Your task to perform on an android device: toggle pop-ups in chrome Image 0: 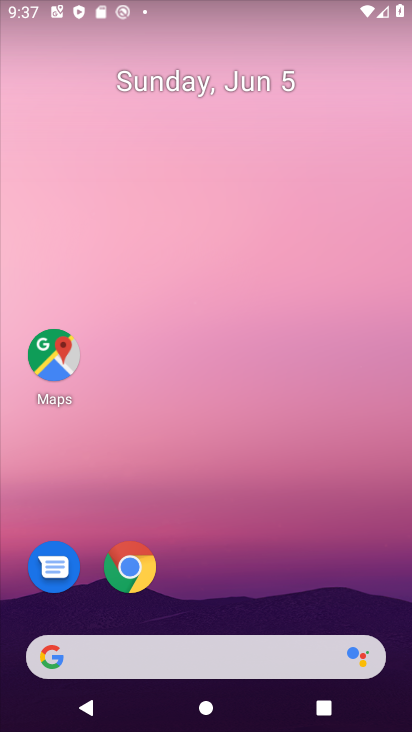
Step 0: click (278, 386)
Your task to perform on an android device: toggle pop-ups in chrome Image 1: 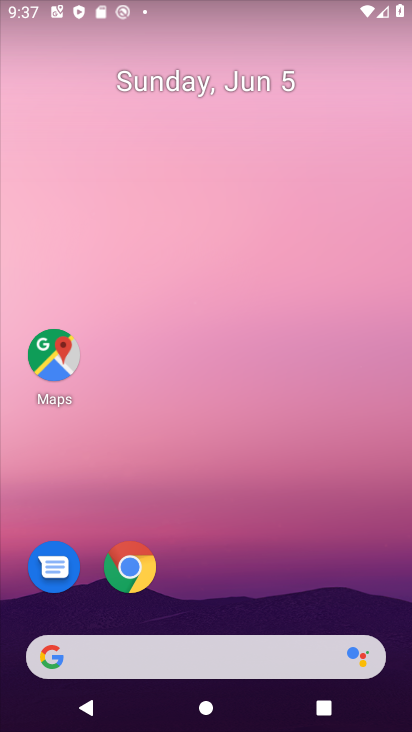
Step 1: click (133, 580)
Your task to perform on an android device: toggle pop-ups in chrome Image 2: 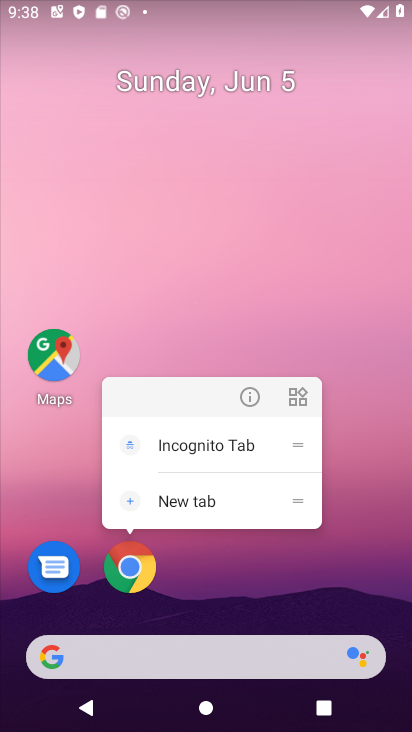
Step 2: click (124, 564)
Your task to perform on an android device: toggle pop-ups in chrome Image 3: 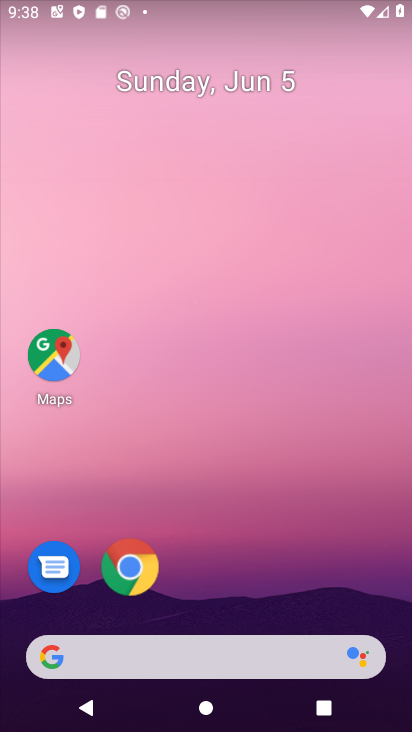
Step 3: click (133, 572)
Your task to perform on an android device: toggle pop-ups in chrome Image 4: 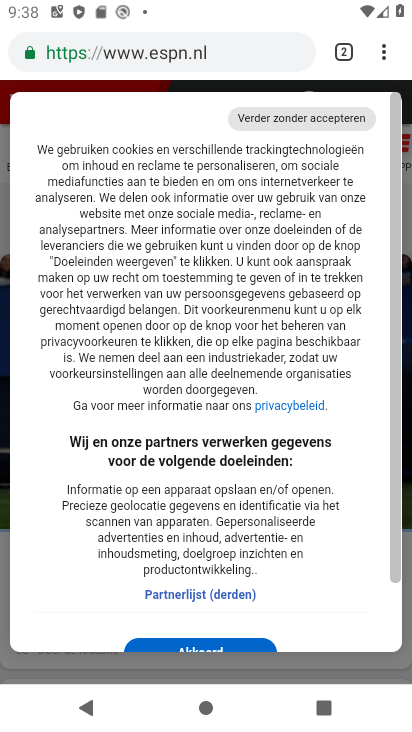
Step 4: click (381, 55)
Your task to perform on an android device: toggle pop-ups in chrome Image 5: 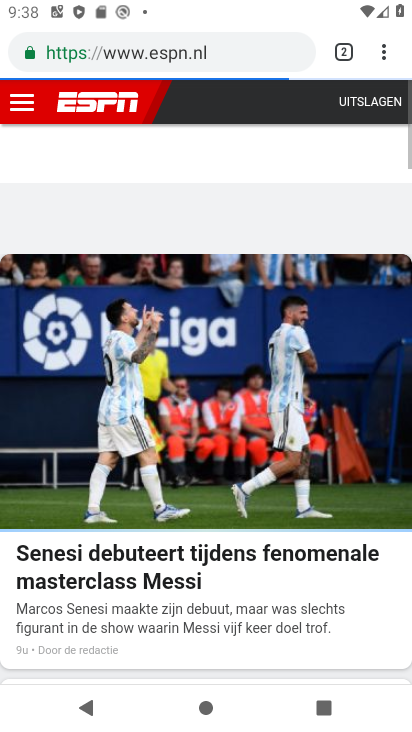
Step 5: click (369, 53)
Your task to perform on an android device: toggle pop-ups in chrome Image 6: 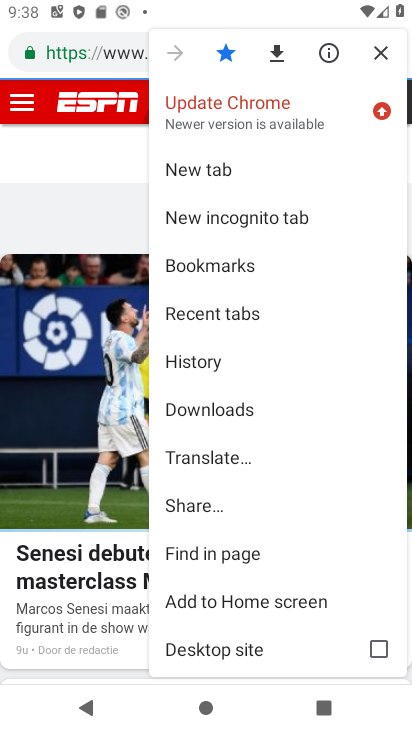
Step 6: drag from (200, 612) to (239, 239)
Your task to perform on an android device: toggle pop-ups in chrome Image 7: 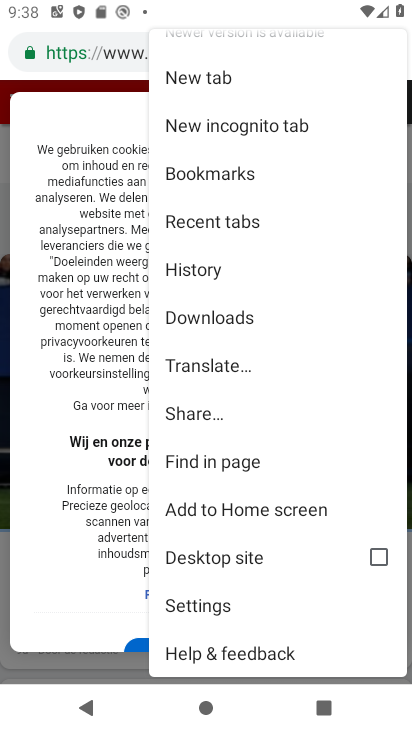
Step 7: click (204, 606)
Your task to perform on an android device: toggle pop-ups in chrome Image 8: 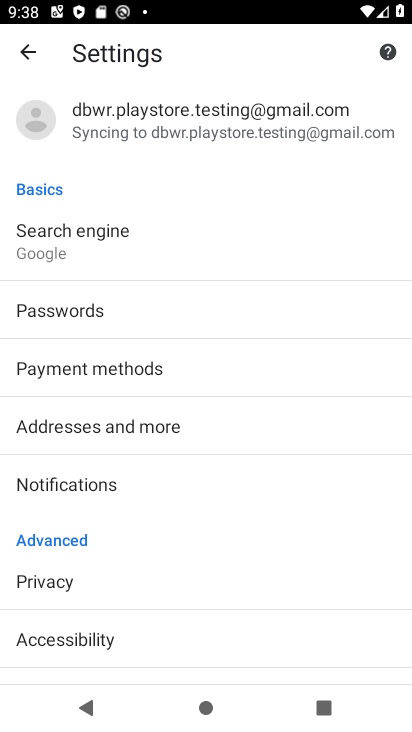
Step 8: drag from (69, 563) to (122, 199)
Your task to perform on an android device: toggle pop-ups in chrome Image 9: 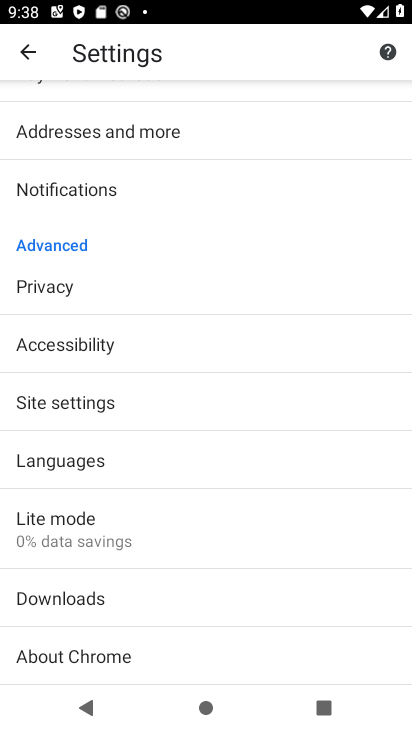
Step 9: drag from (66, 671) to (115, 320)
Your task to perform on an android device: toggle pop-ups in chrome Image 10: 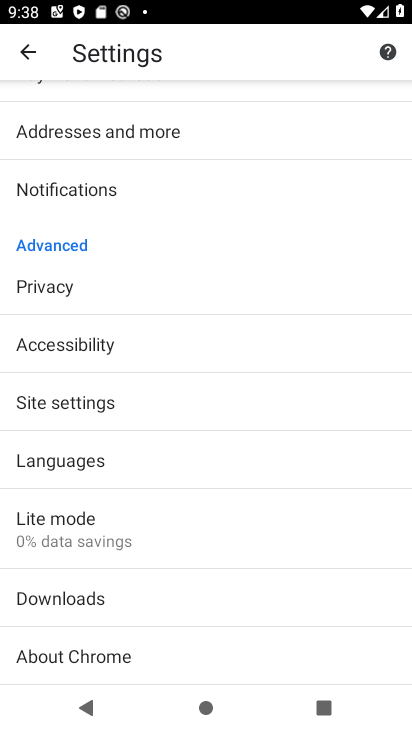
Step 10: click (103, 408)
Your task to perform on an android device: toggle pop-ups in chrome Image 11: 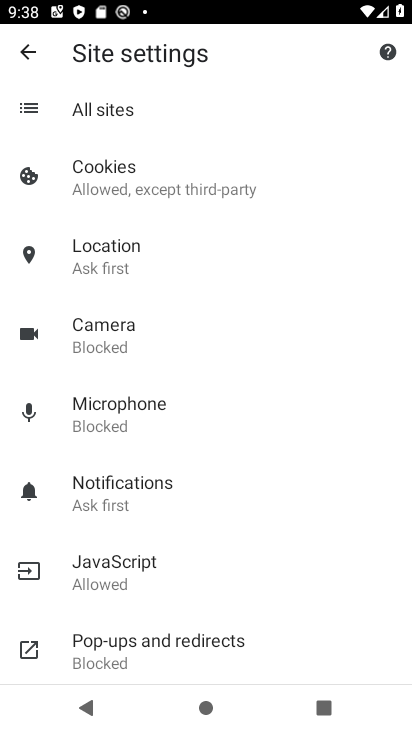
Step 11: click (153, 654)
Your task to perform on an android device: toggle pop-ups in chrome Image 12: 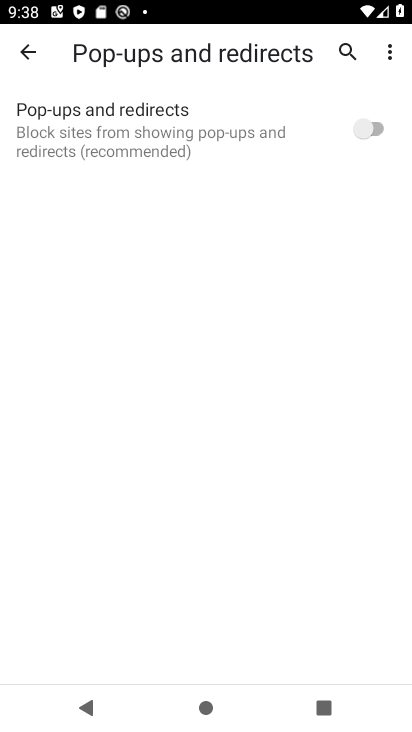
Step 12: click (376, 124)
Your task to perform on an android device: toggle pop-ups in chrome Image 13: 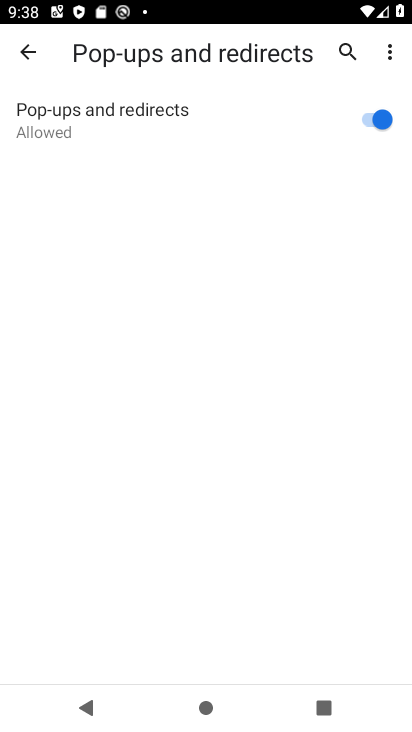
Step 13: task complete